Your task to perform on an android device: read, delete, or share a saved page in the chrome app Image 0: 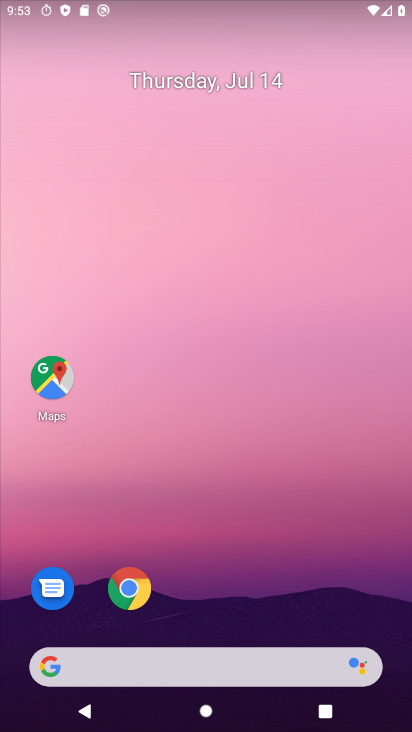
Step 0: click (128, 599)
Your task to perform on an android device: read, delete, or share a saved page in the chrome app Image 1: 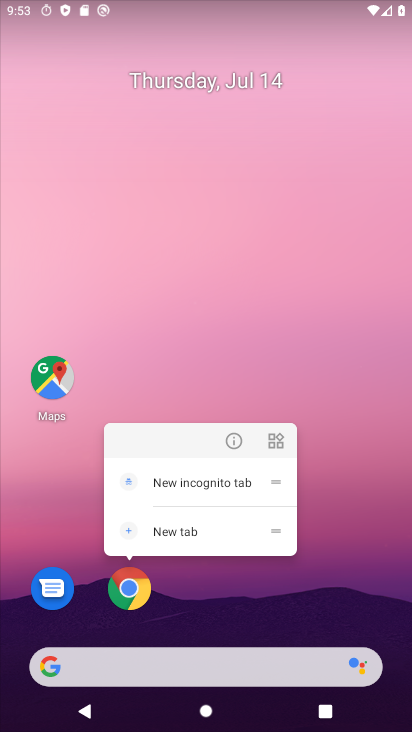
Step 1: click (126, 593)
Your task to perform on an android device: read, delete, or share a saved page in the chrome app Image 2: 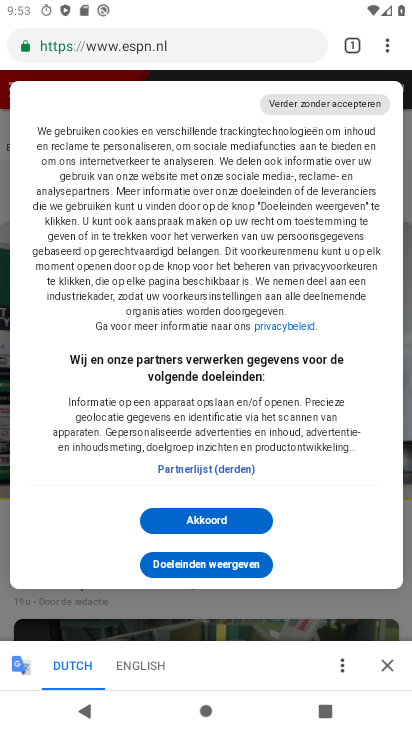
Step 2: click (383, 47)
Your task to perform on an android device: read, delete, or share a saved page in the chrome app Image 3: 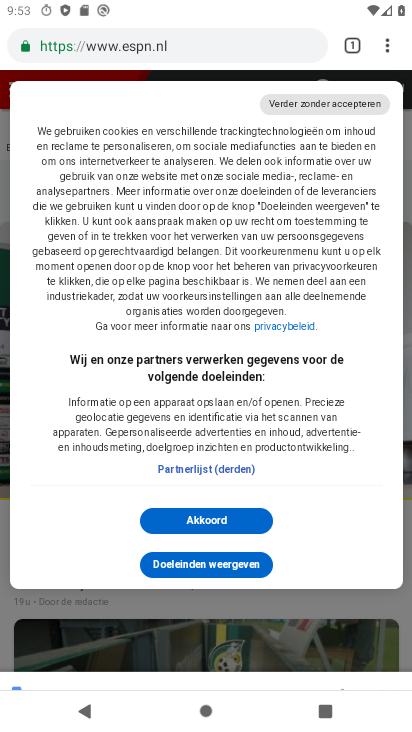
Step 3: click (385, 47)
Your task to perform on an android device: read, delete, or share a saved page in the chrome app Image 4: 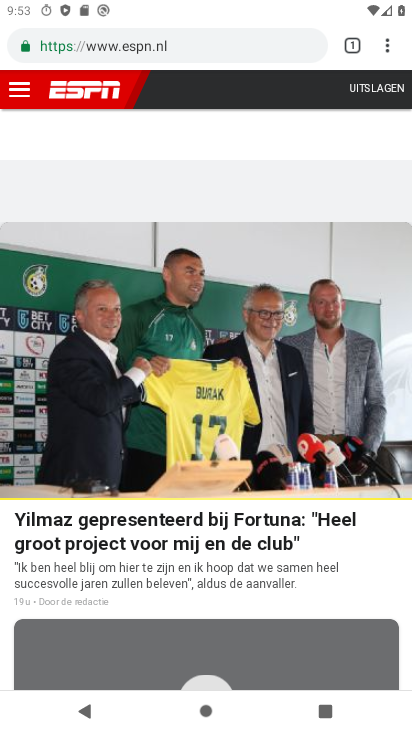
Step 4: click (388, 44)
Your task to perform on an android device: read, delete, or share a saved page in the chrome app Image 5: 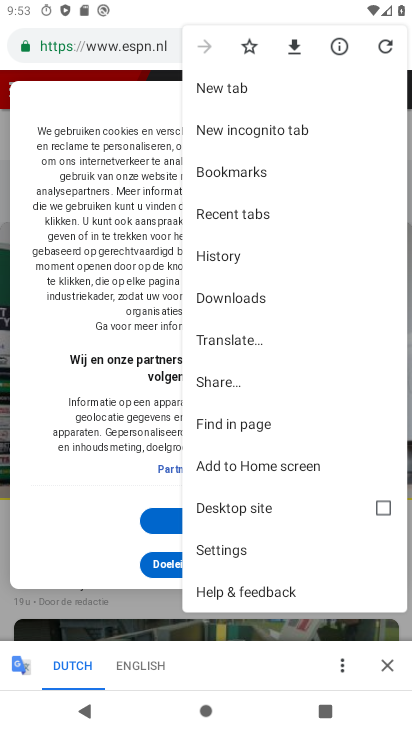
Step 5: click (227, 297)
Your task to perform on an android device: read, delete, or share a saved page in the chrome app Image 6: 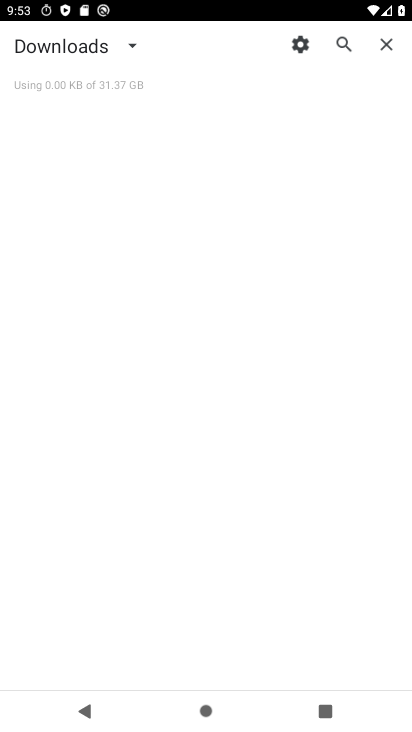
Step 6: click (116, 57)
Your task to perform on an android device: read, delete, or share a saved page in the chrome app Image 7: 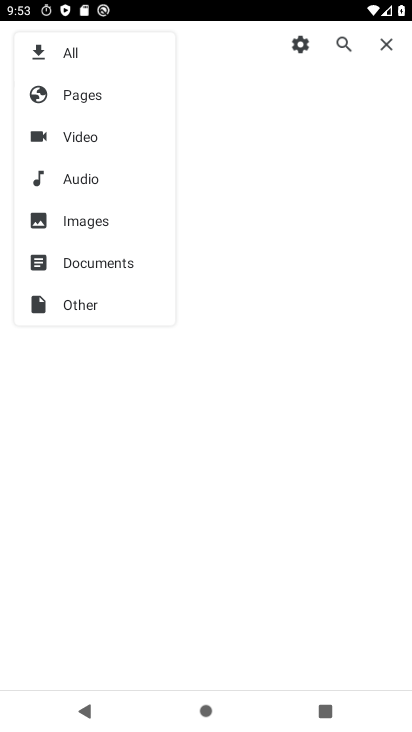
Step 7: click (74, 92)
Your task to perform on an android device: read, delete, or share a saved page in the chrome app Image 8: 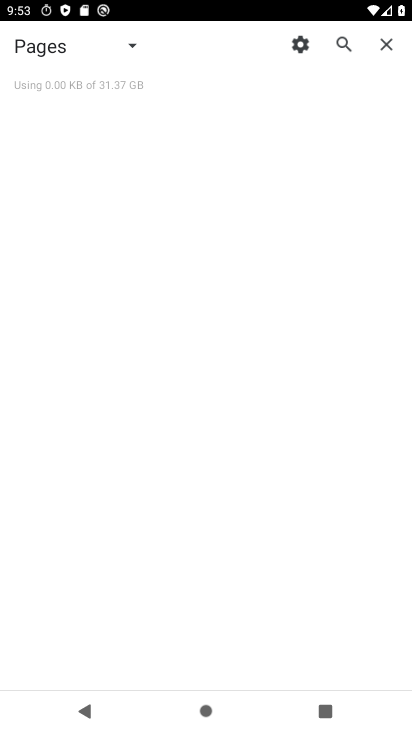
Step 8: task complete